Your task to perform on an android device: change text size in settings app Image 0: 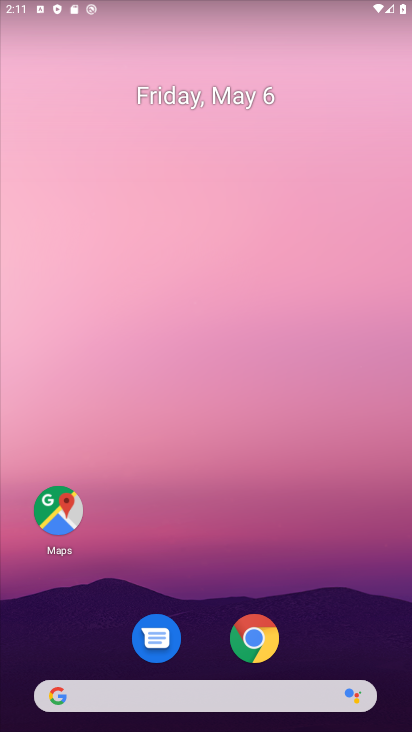
Step 0: drag from (114, 727) to (152, 91)
Your task to perform on an android device: change text size in settings app Image 1: 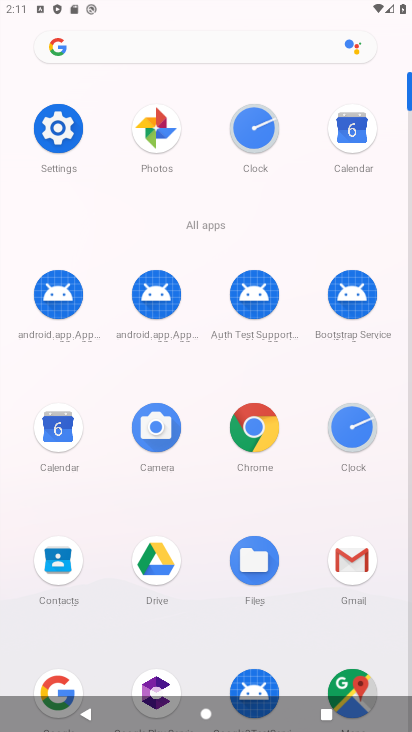
Step 1: click (62, 130)
Your task to perform on an android device: change text size in settings app Image 2: 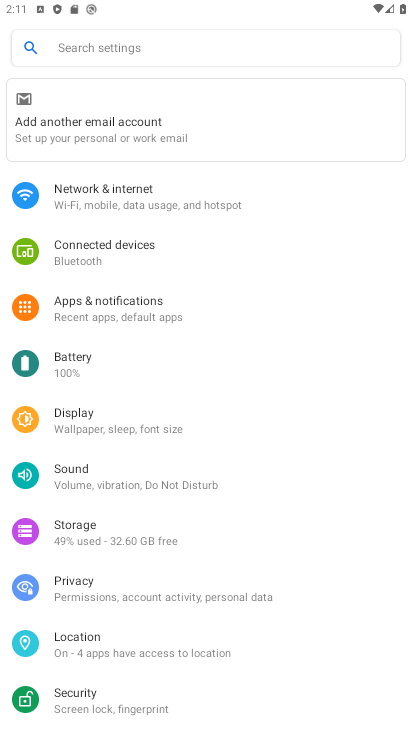
Step 2: click (154, 424)
Your task to perform on an android device: change text size in settings app Image 3: 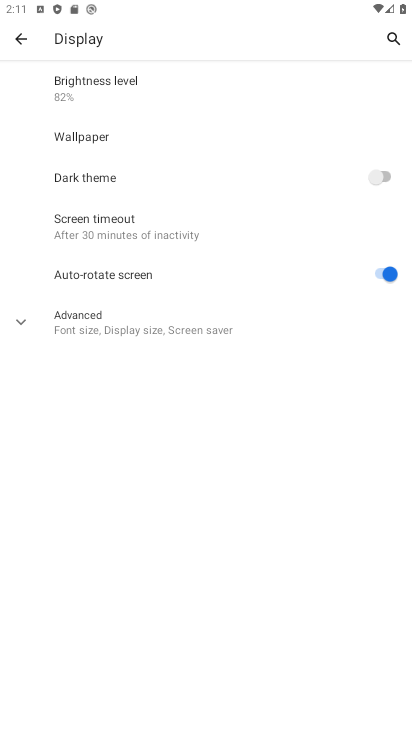
Step 3: click (191, 310)
Your task to perform on an android device: change text size in settings app Image 4: 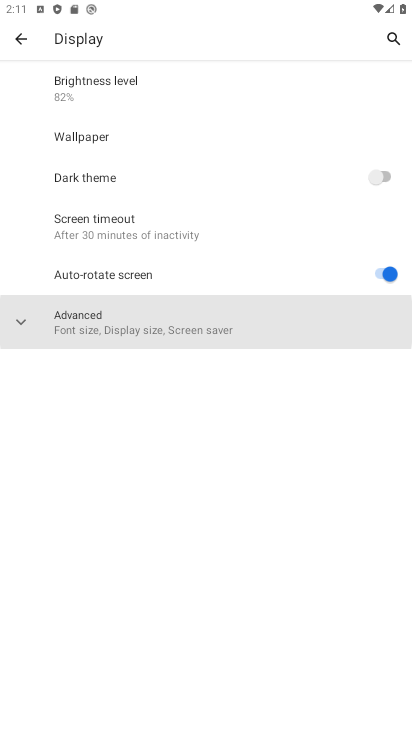
Step 4: click (200, 331)
Your task to perform on an android device: change text size in settings app Image 5: 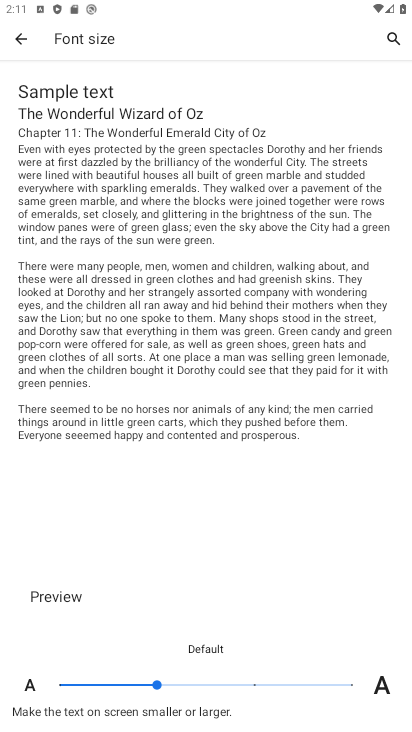
Step 5: click (146, 329)
Your task to perform on an android device: change text size in settings app Image 6: 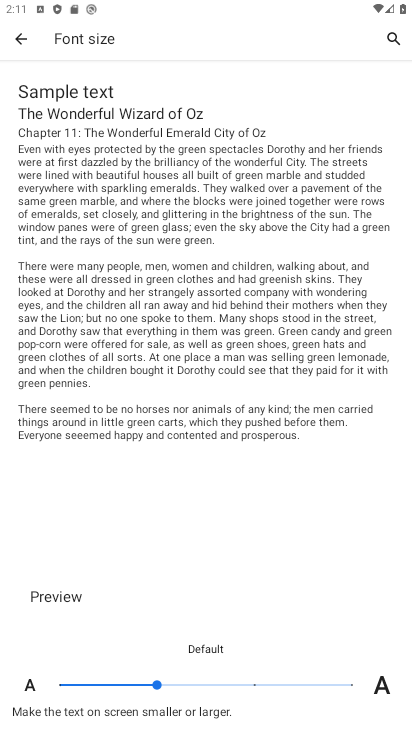
Step 6: click (54, 686)
Your task to perform on an android device: change text size in settings app Image 7: 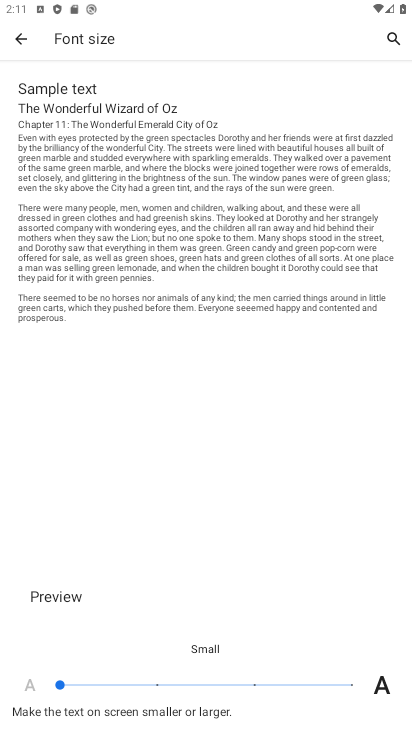
Step 7: click (61, 686)
Your task to perform on an android device: change text size in settings app Image 8: 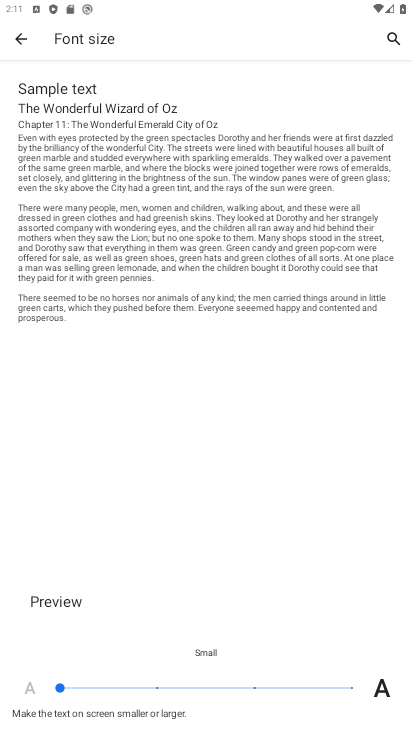
Step 8: task complete